Your task to perform on an android device: set the timer Image 0: 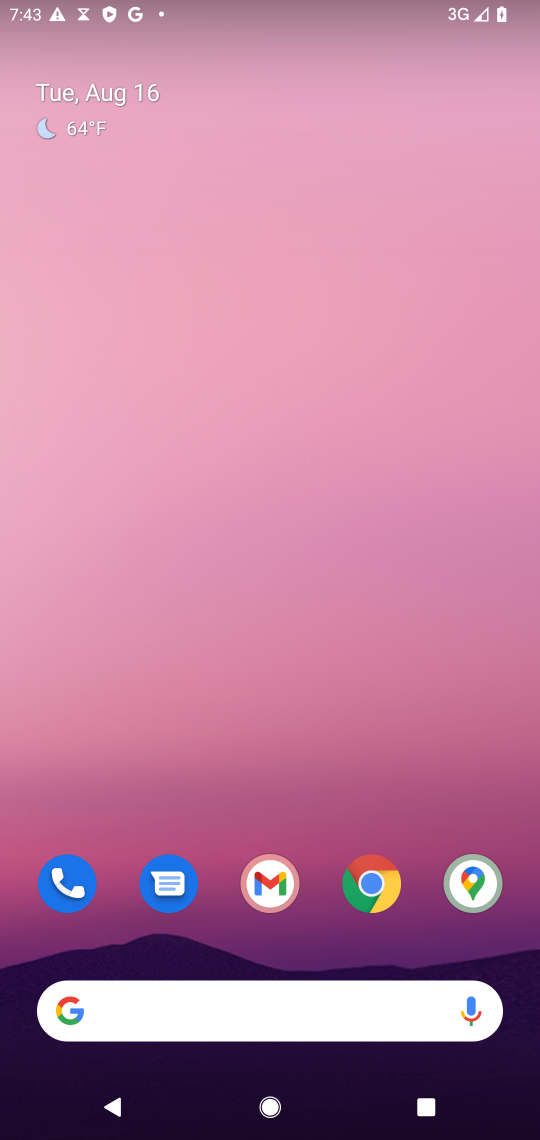
Step 0: drag from (301, 899) to (304, 308)
Your task to perform on an android device: set the timer Image 1: 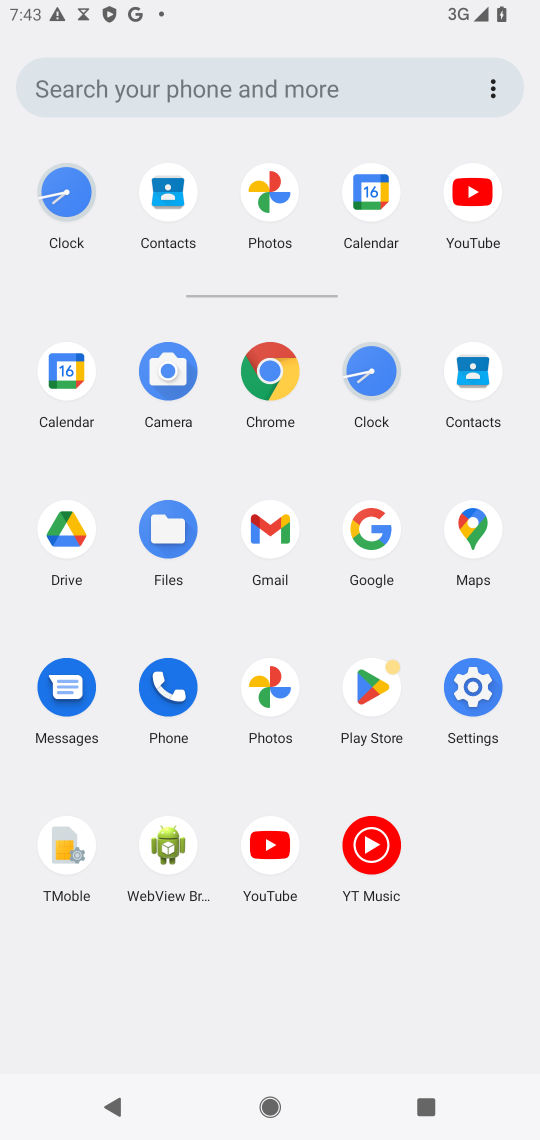
Step 1: click (373, 375)
Your task to perform on an android device: set the timer Image 2: 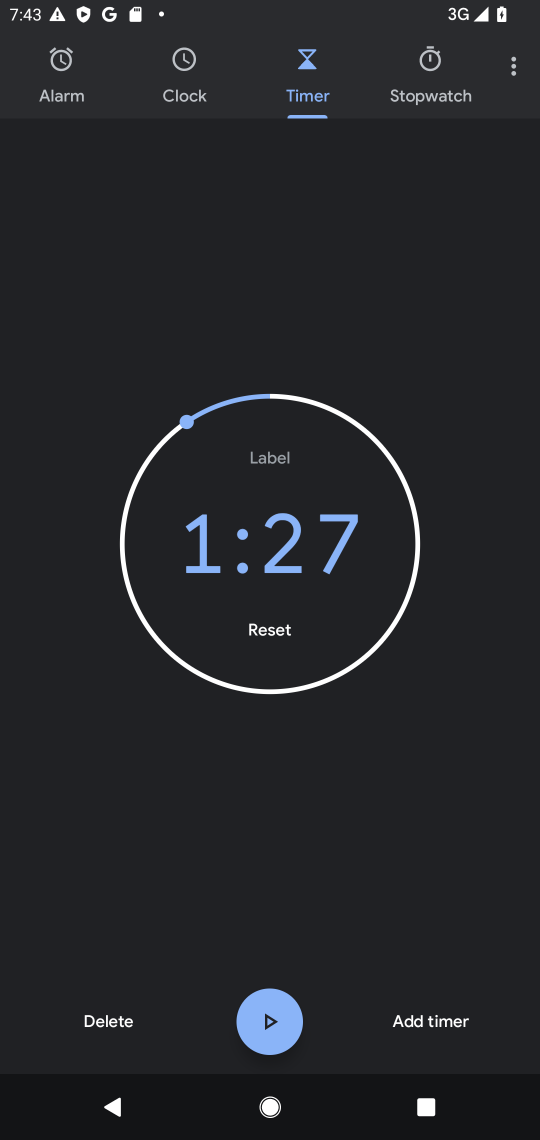
Step 2: click (90, 1027)
Your task to perform on an android device: set the timer Image 3: 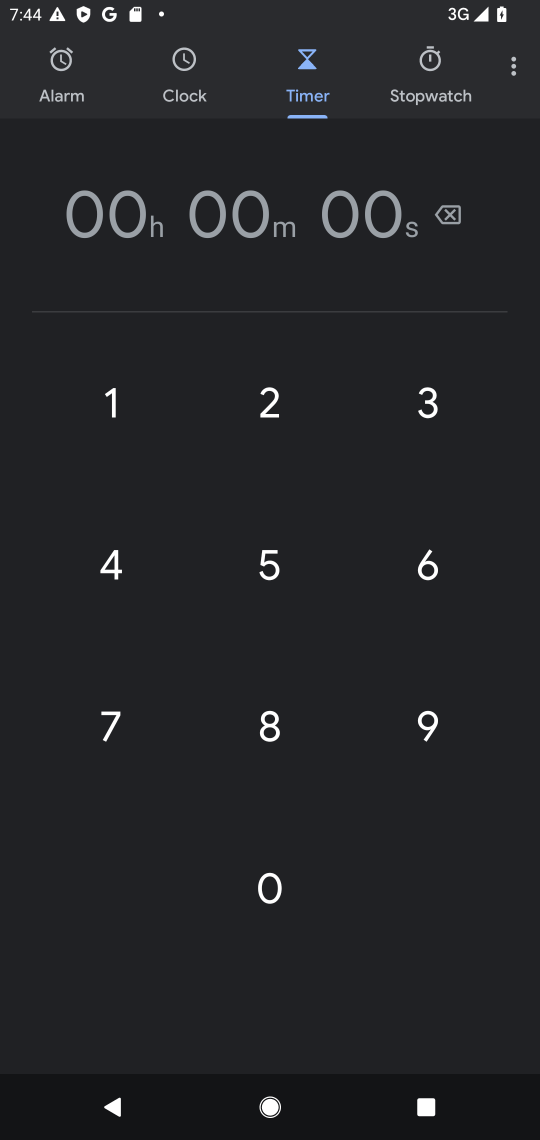
Step 3: type "135"
Your task to perform on an android device: set the timer Image 4: 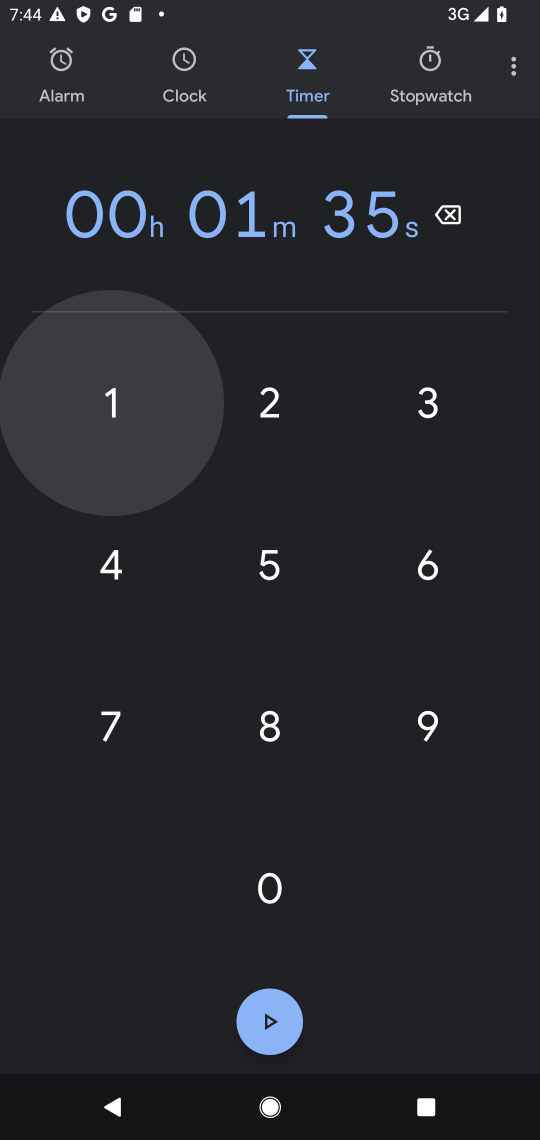
Step 4: click (282, 1019)
Your task to perform on an android device: set the timer Image 5: 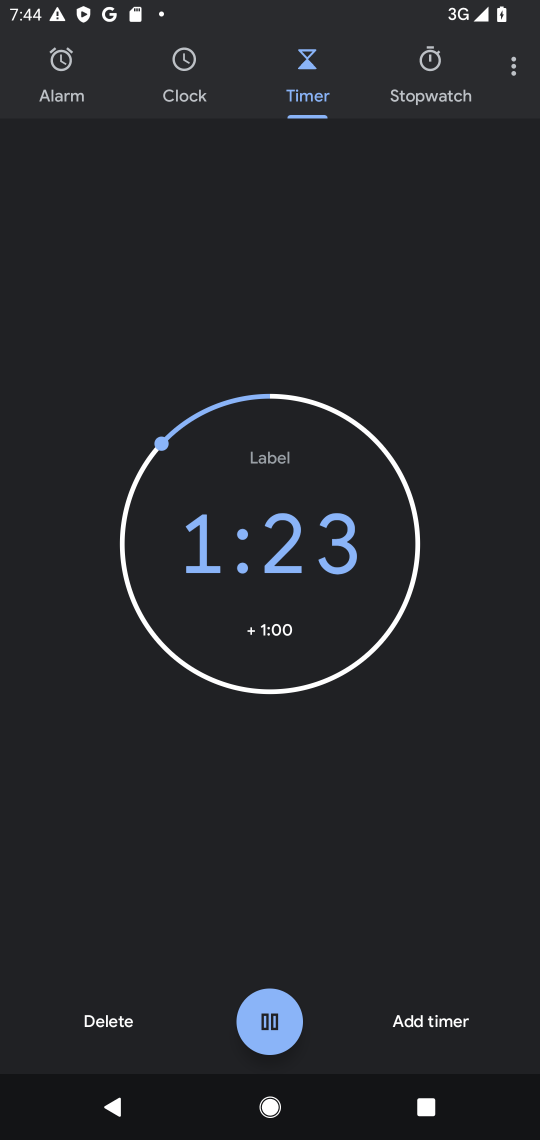
Step 5: task complete